Your task to perform on an android device: Go to display settings Image 0: 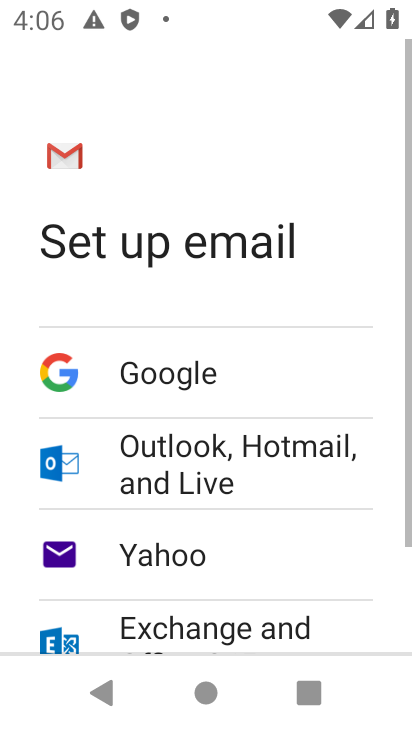
Step 0: press home button
Your task to perform on an android device: Go to display settings Image 1: 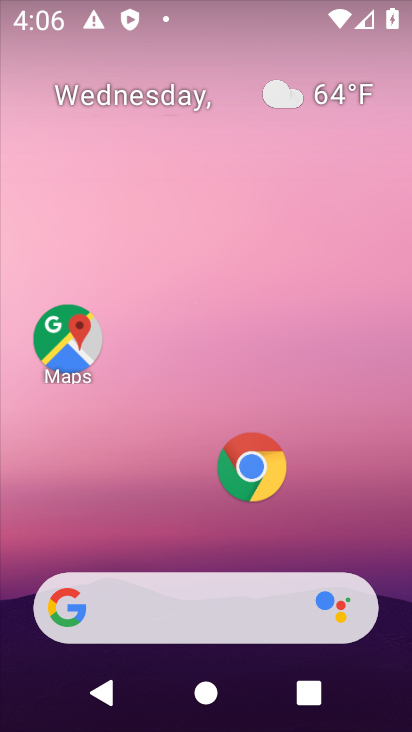
Step 1: task complete